Your task to perform on an android device: How much does a 2 bedroom apartment rent for in New York? Image 0: 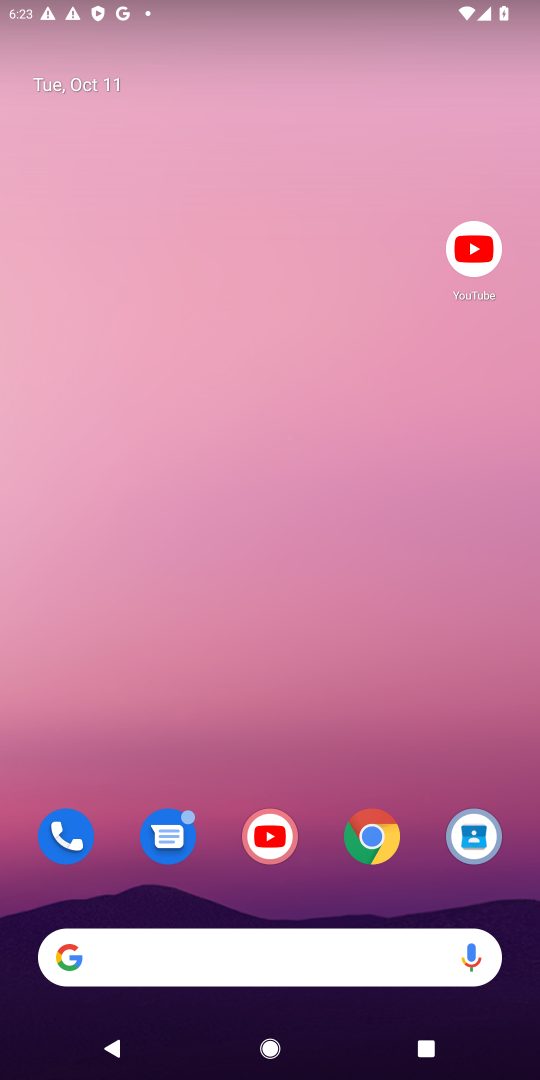
Step 0: click (378, 837)
Your task to perform on an android device: How much does a 2 bedroom apartment rent for in New York? Image 1: 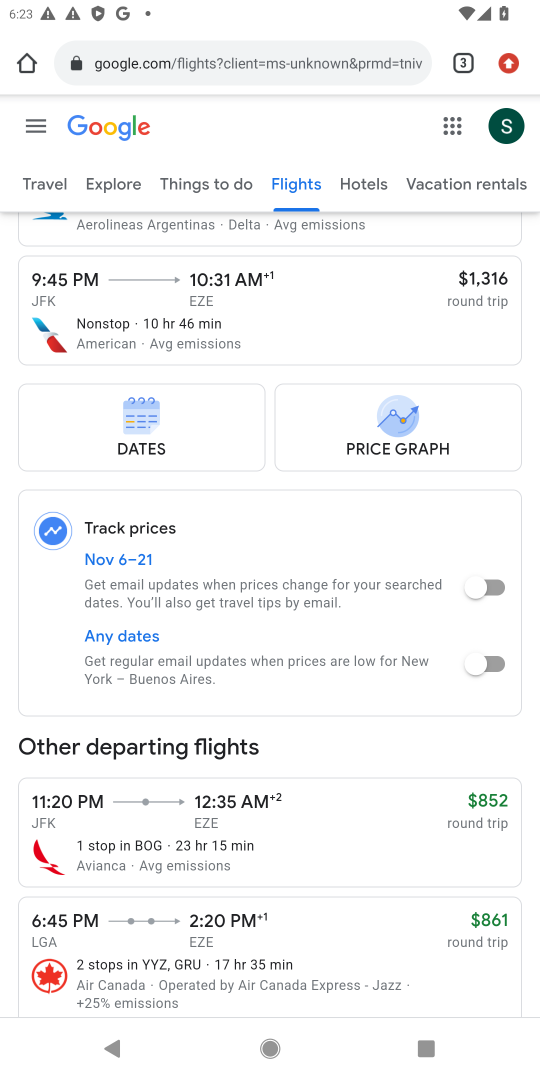
Step 1: click (280, 62)
Your task to perform on an android device: How much does a 2 bedroom apartment rent for in New York? Image 2: 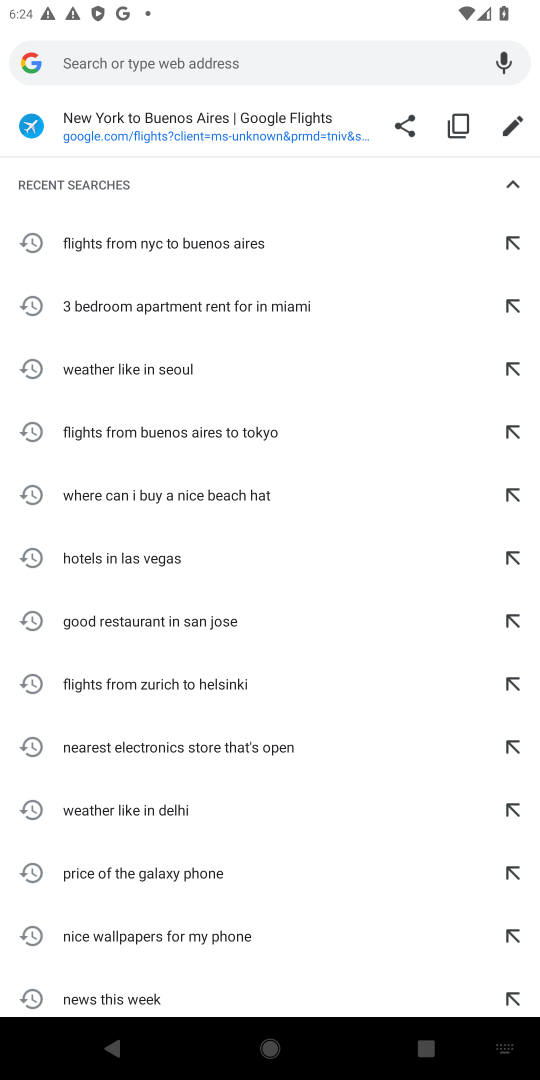
Step 2: type "2 bedroom apartment rent for in New York"
Your task to perform on an android device: How much does a 2 bedroom apartment rent for in New York? Image 3: 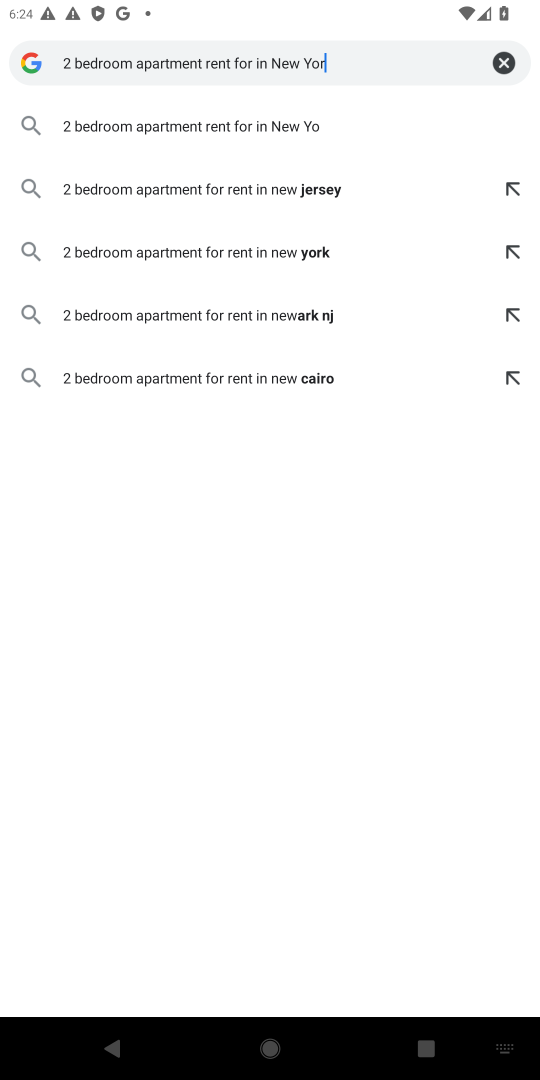
Step 3: press enter
Your task to perform on an android device: How much does a 2 bedroom apartment rent for in New York? Image 4: 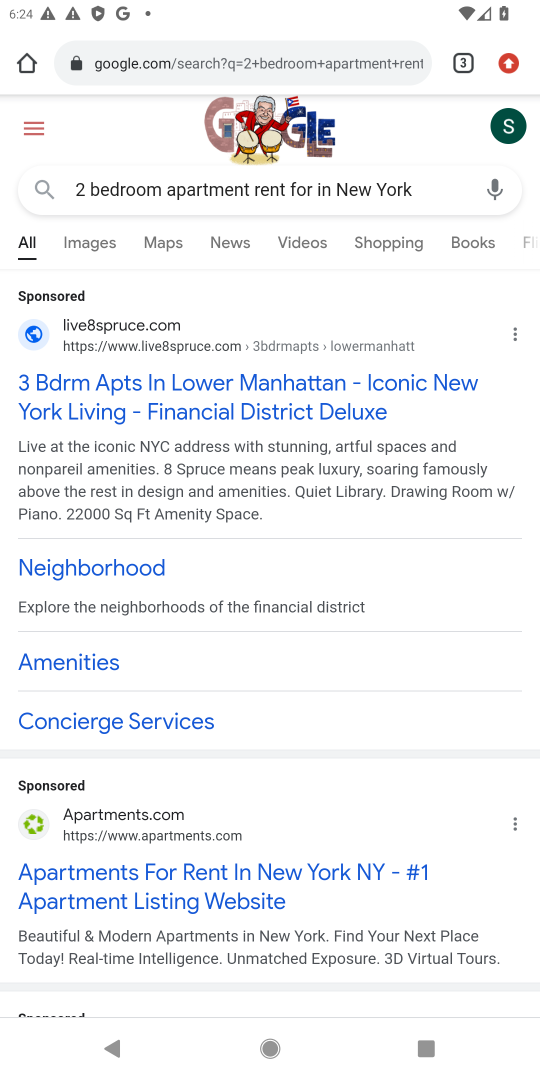
Step 4: drag from (241, 766) to (332, 499)
Your task to perform on an android device: How much does a 2 bedroom apartment rent for in New York? Image 5: 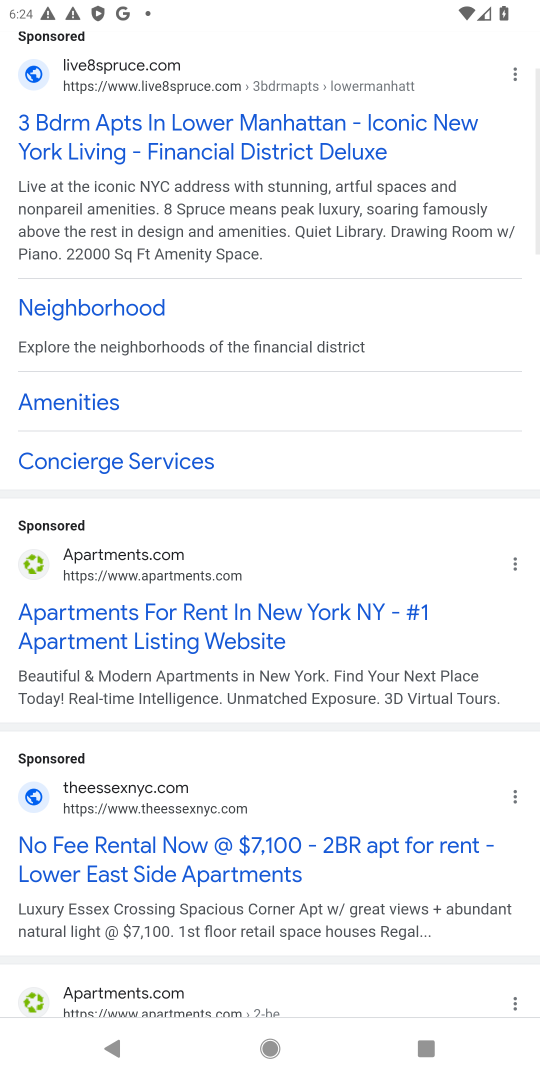
Step 5: drag from (295, 884) to (402, 602)
Your task to perform on an android device: How much does a 2 bedroom apartment rent for in New York? Image 6: 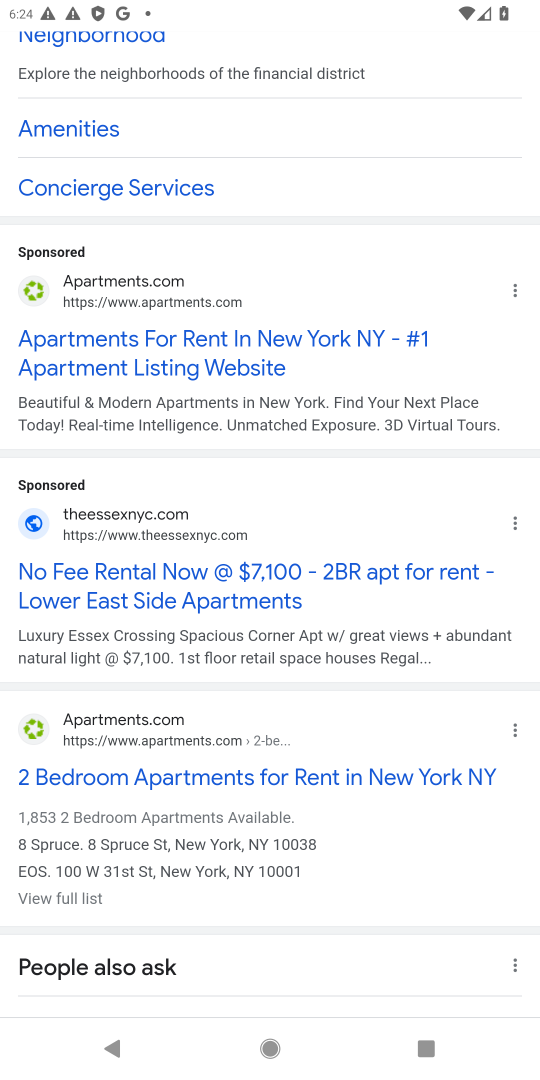
Step 6: click (282, 773)
Your task to perform on an android device: How much does a 2 bedroom apartment rent for in New York? Image 7: 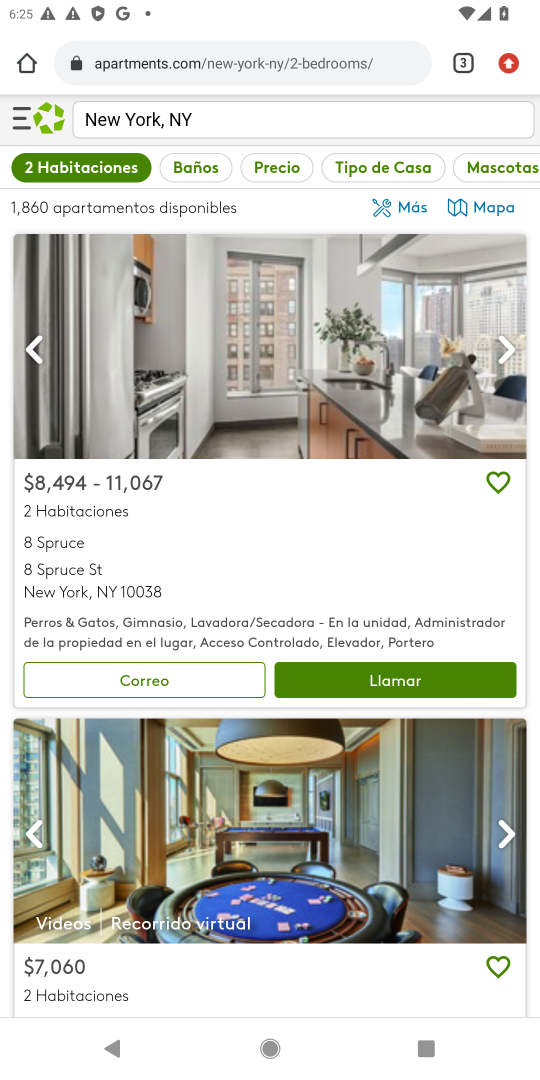
Step 7: task complete